Your task to perform on an android device: What is the recent news? Image 0: 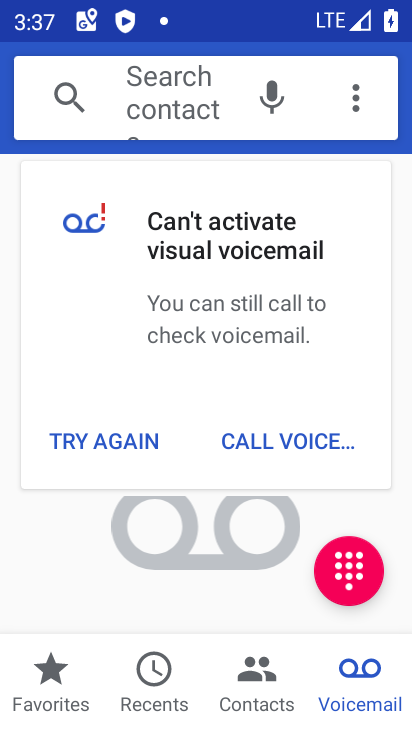
Step 0: press back button
Your task to perform on an android device: What is the recent news? Image 1: 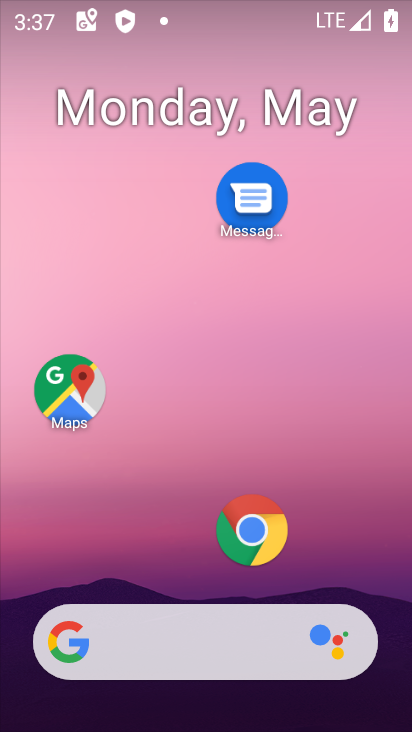
Step 1: click (149, 638)
Your task to perform on an android device: What is the recent news? Image 2: 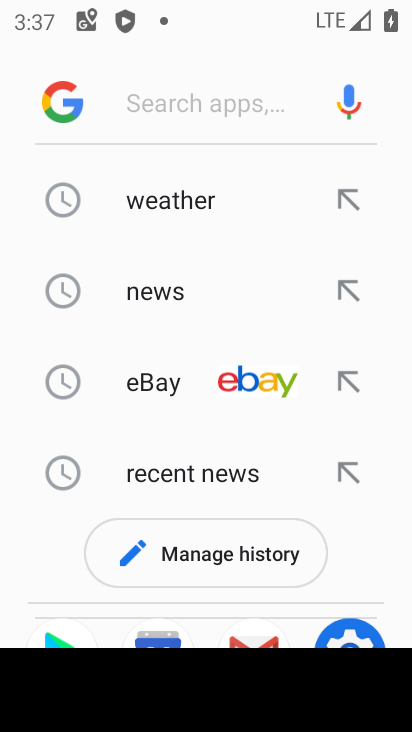
Step 2: click (147, 448)
Your task to perform on an android device: What is the recent news? Image 3: 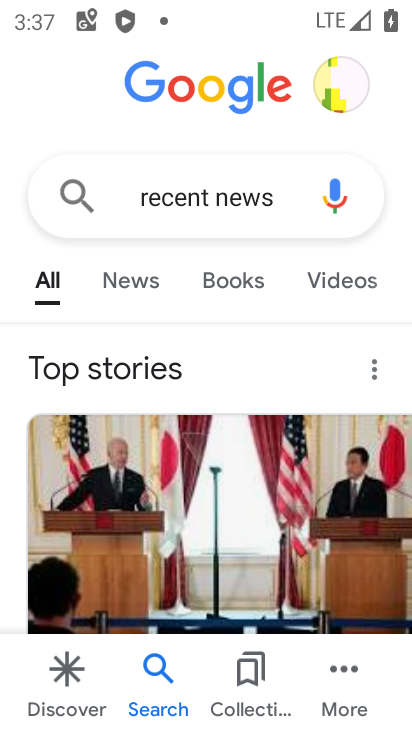
Step 3: task complete